Your task to perform on an android device: check battery use Image 0: 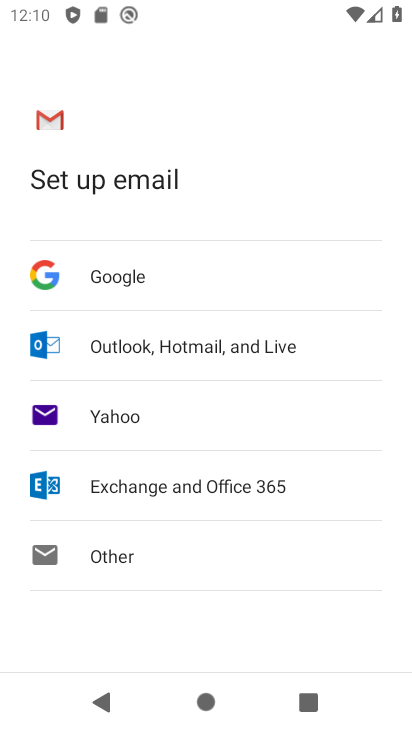
Step 0: press home button
Your task to perform on an android device: check battery use Image 1: 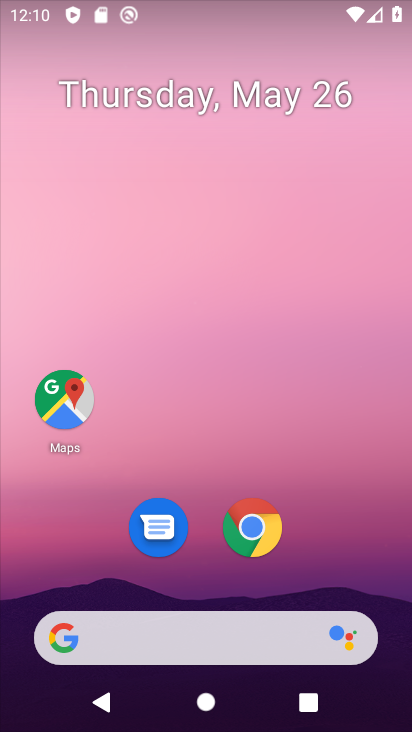
Step 1: drag from (215, 577) to (124, 71)
Your task to perform on an android device: check battery use Image 2: 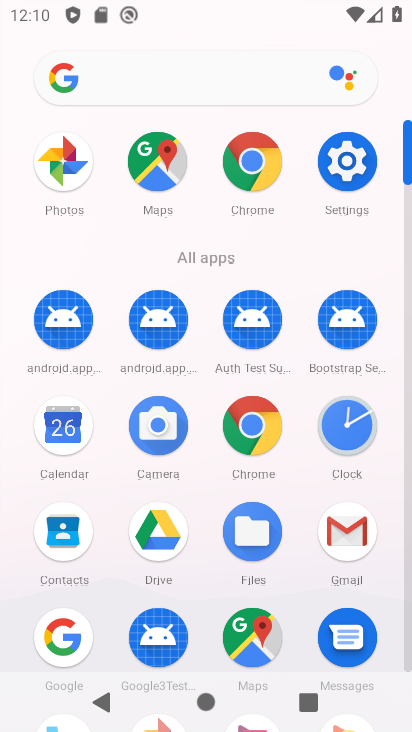
Step 2: click (333, 160)
Your task to perform on an android device: check battery use Image 3: 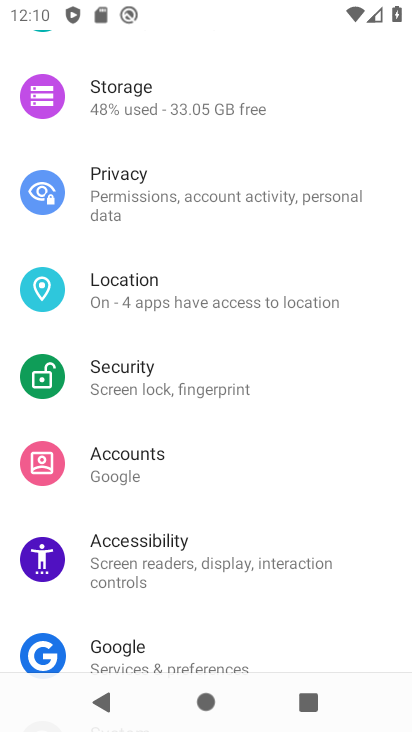
Step 3: drag from (148, 539) to (154, 204)
Your task to perform on an android device: check battery use Image 4: 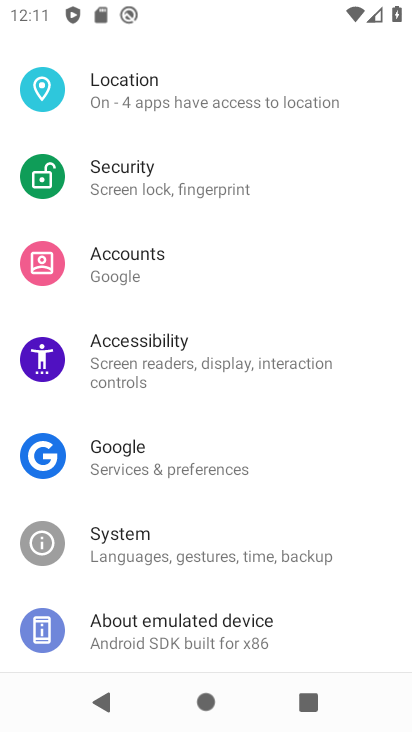
Step 4: drag from (154, 204) to (248, 627)
Your task to perform on an android device: check battery use Image 5: 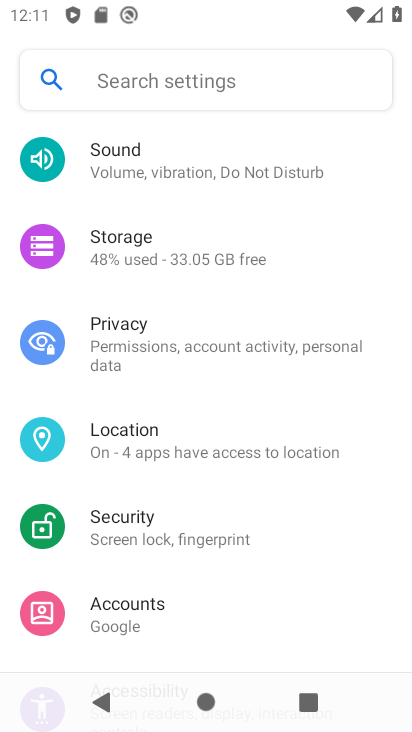
Step 5: drag from (156, 175) to (210, 482)
Your task to perform on an android device: check battery use Image 6: 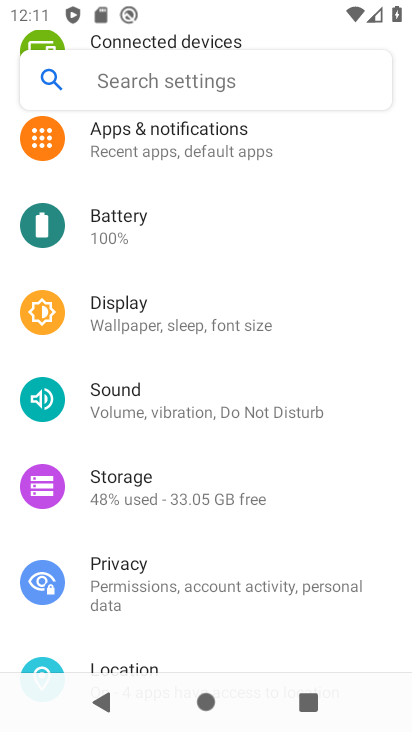
Step 6: click (97, 212)
Your task to perform on an android device: check battery use Image 7: 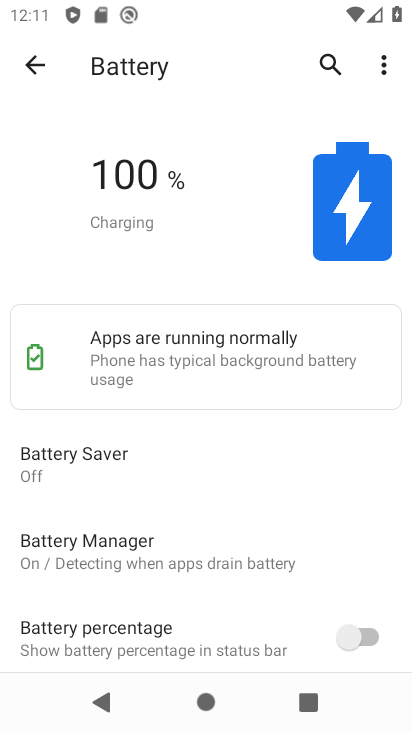
Step 7: click (380, 73)
Your task to perform on an android device: check battery use Image 8: 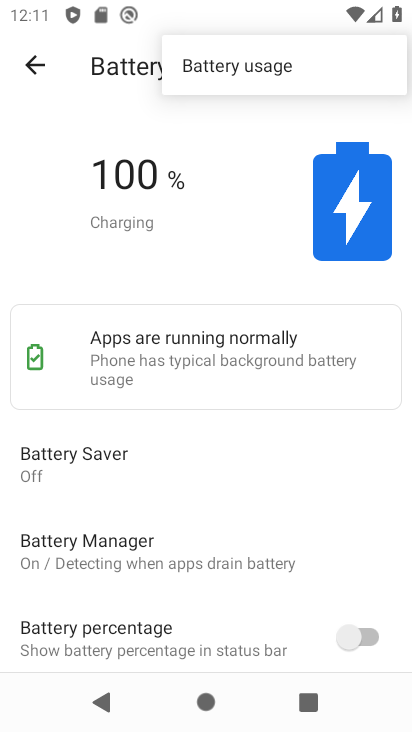
Step 8: click (241, 57)
Your task to perform on an android device: check battery use Image 9: 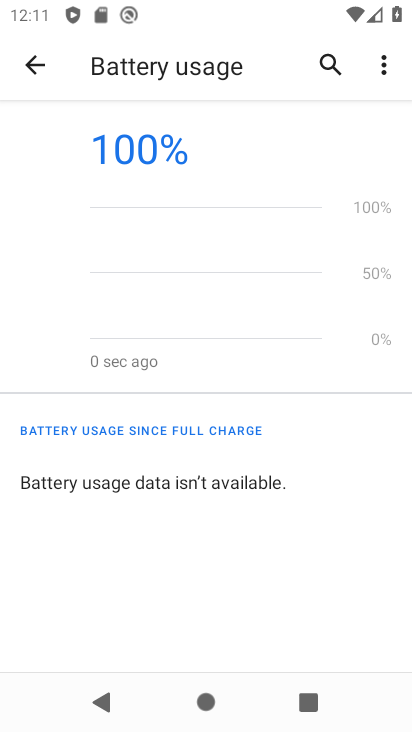
Step 9: task complete